Your task to perform on an android device: Go to Yahoo.com Image 0: 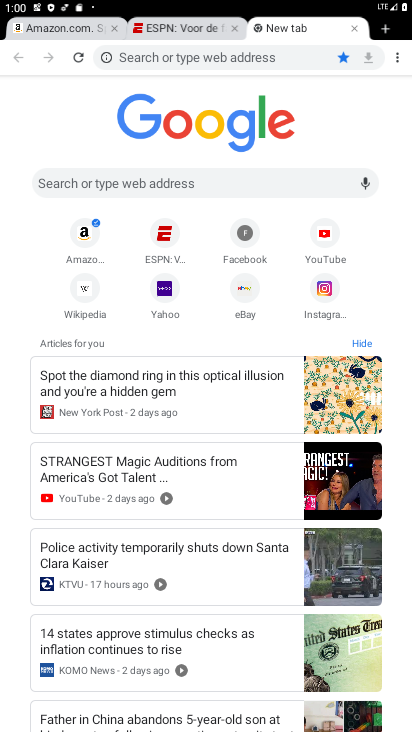
Step 0: press home button
Your task to perform on an android device: Go to Yahoo.com Image 1: 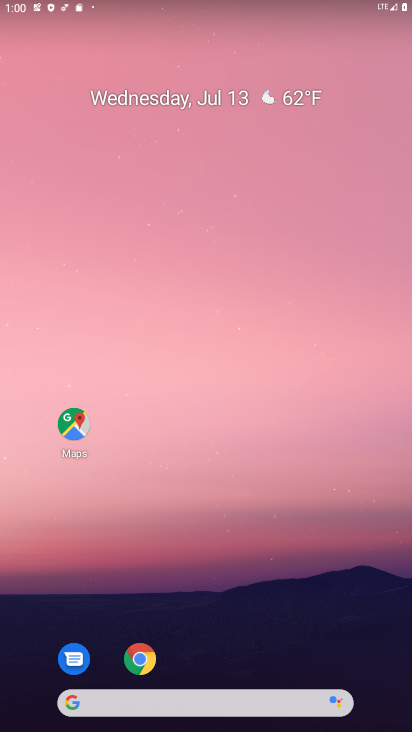
Step 1: drag from (243, 725) to (250, 174)
Your task to perform on an android device: Go to Yahoo.com Image 2: 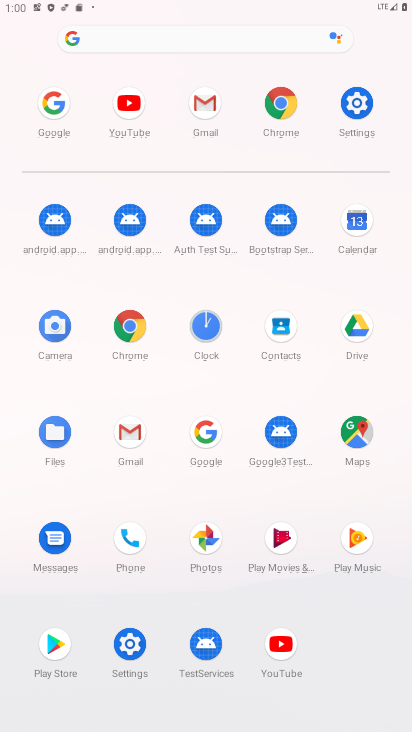
Step 2: click (131, 327)
Your task to perform on an android device: Go to Yahoo.com Image 3: 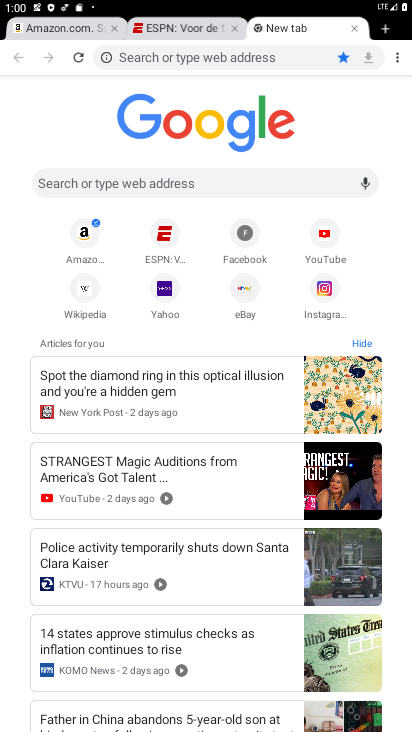
Step 3: click (166, 289)
Your task to perform on an android device: Go to Yahoo.com Image 4: 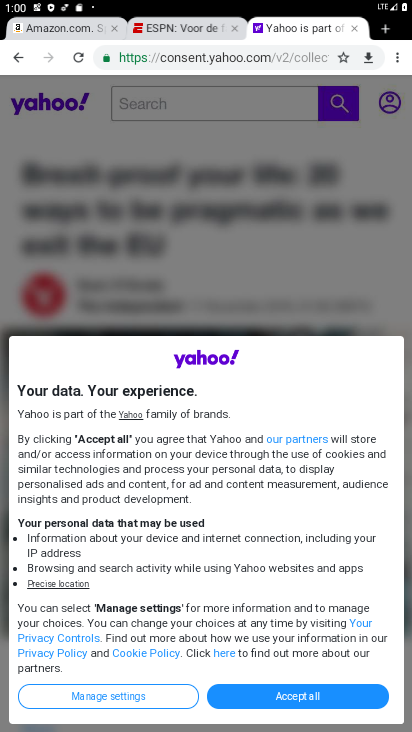
Step 4: task complete